Your task to perform on an android device: Open a new private window in the chrome app Image 0: 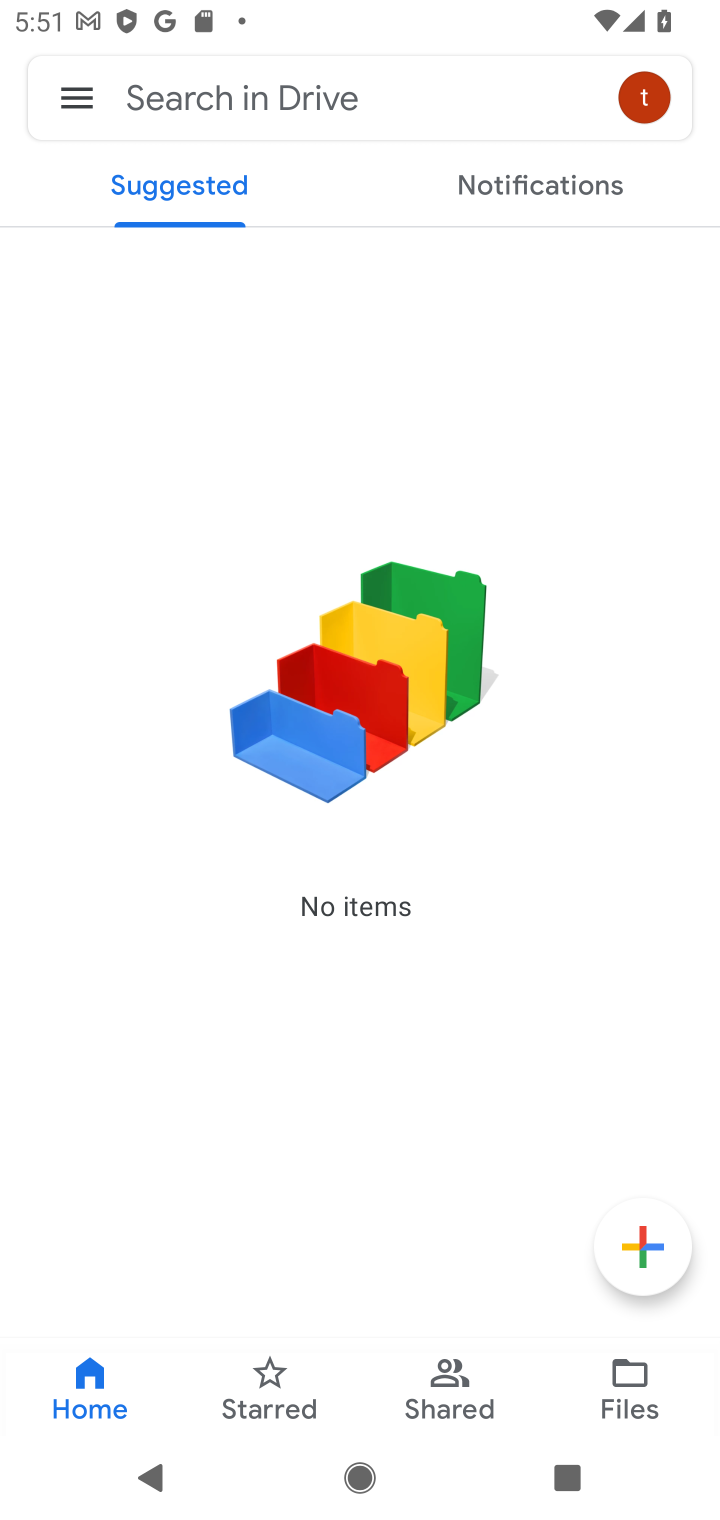
Step 0: press home button
Your task to perform on an android device: Open a new private window in the chrome app Image 1: 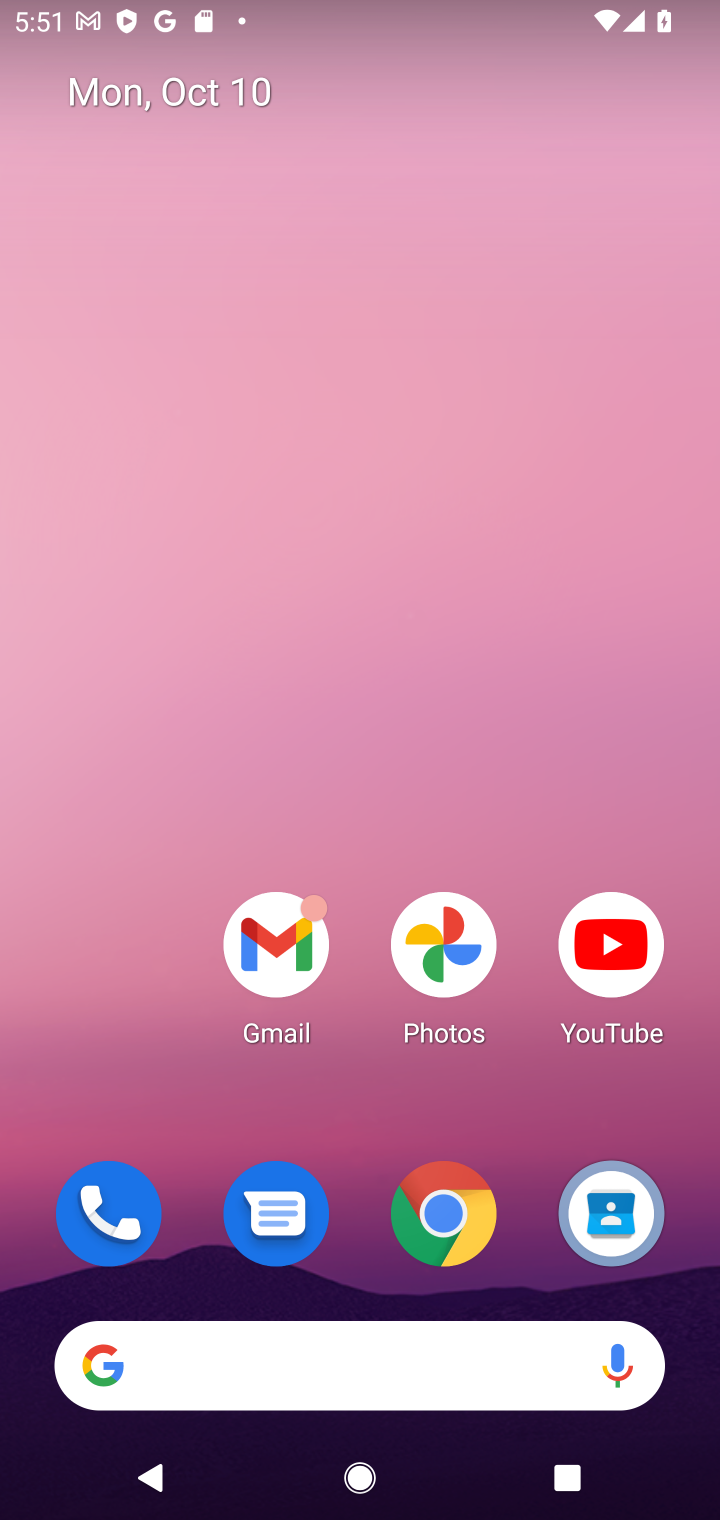
Step 1: click (437, 1215)
Your task to perform on an android device: Open a new private window in the chrome app Image 2: 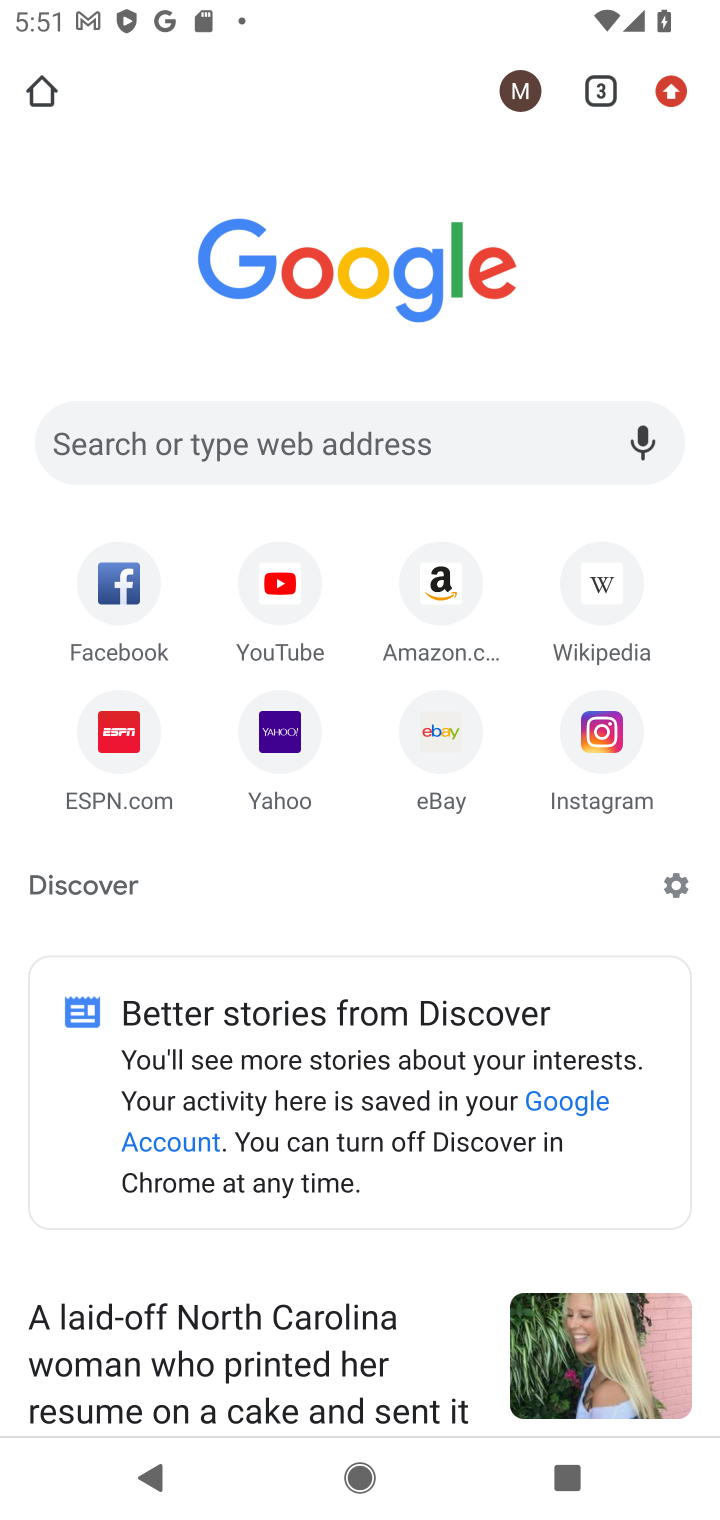
Step 2: click (673, 86)
Your task to perform on an android device: Open a new private window in the chrome app Image 3: 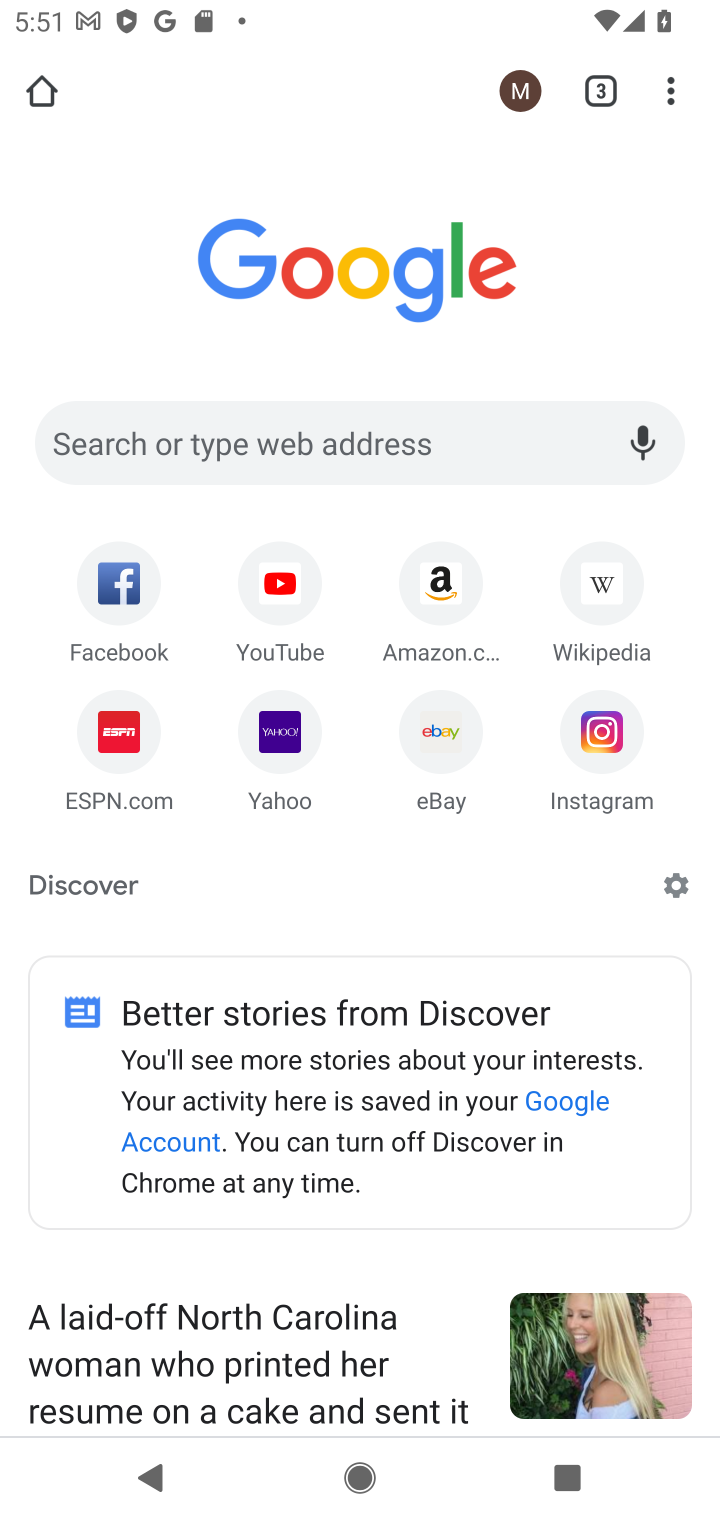
Step 3: click (673, 86)
Your task to perform on an android device: Open a new private window in the chrome app Image 4: 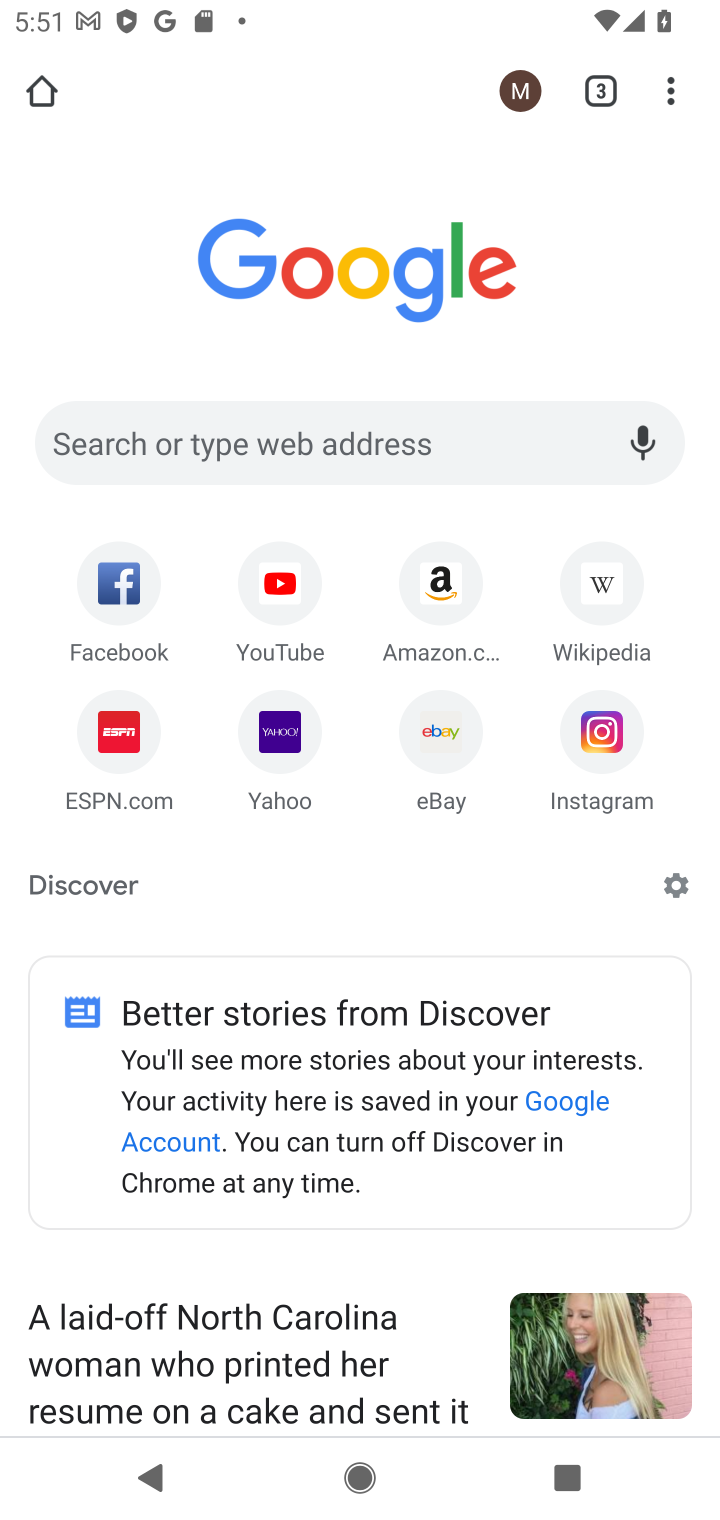
Step 4: click (657, 93)
Your task to perform on an android device: Open a new private window in the chrome app Image 5: 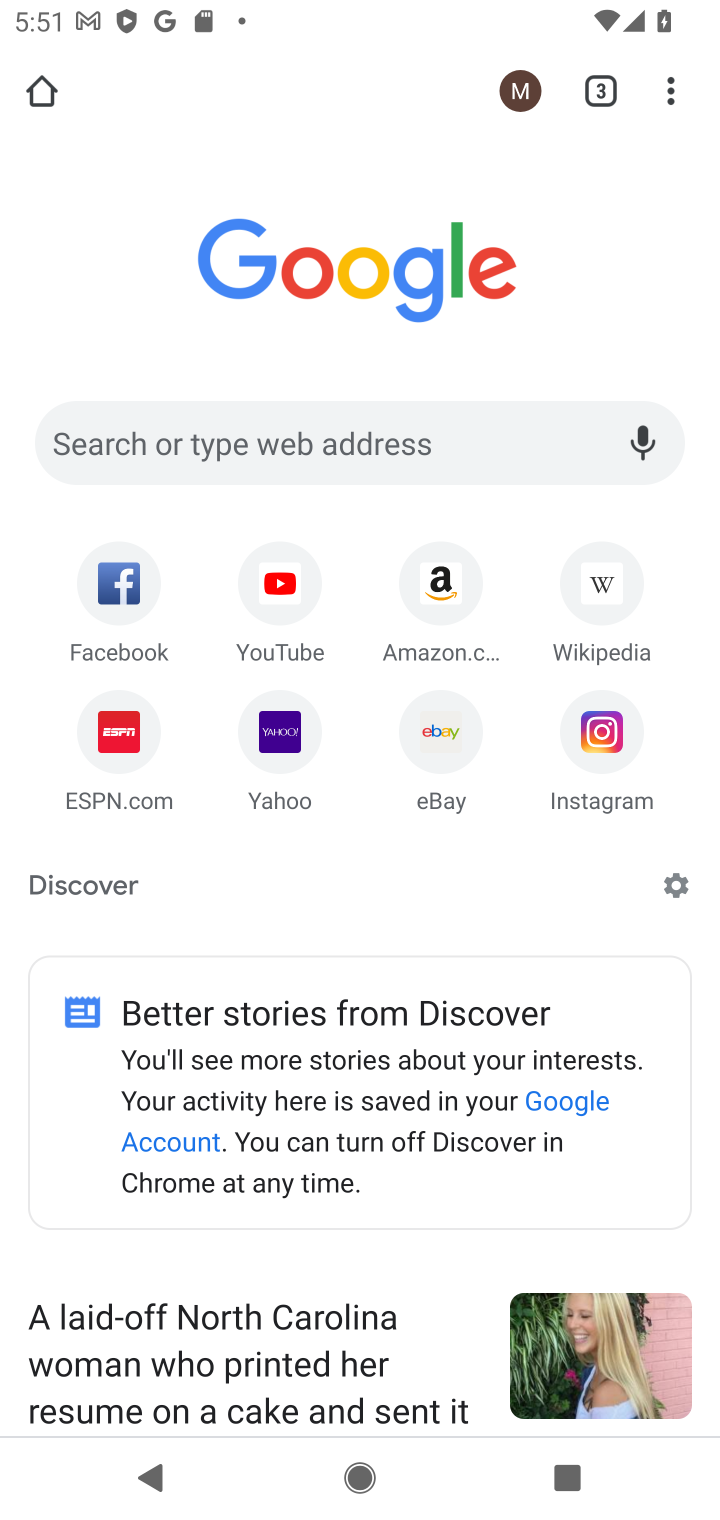
Step 5: click (662, 93)
Your task to perform on an android device: Open a new private window in the chrome app Image 6: 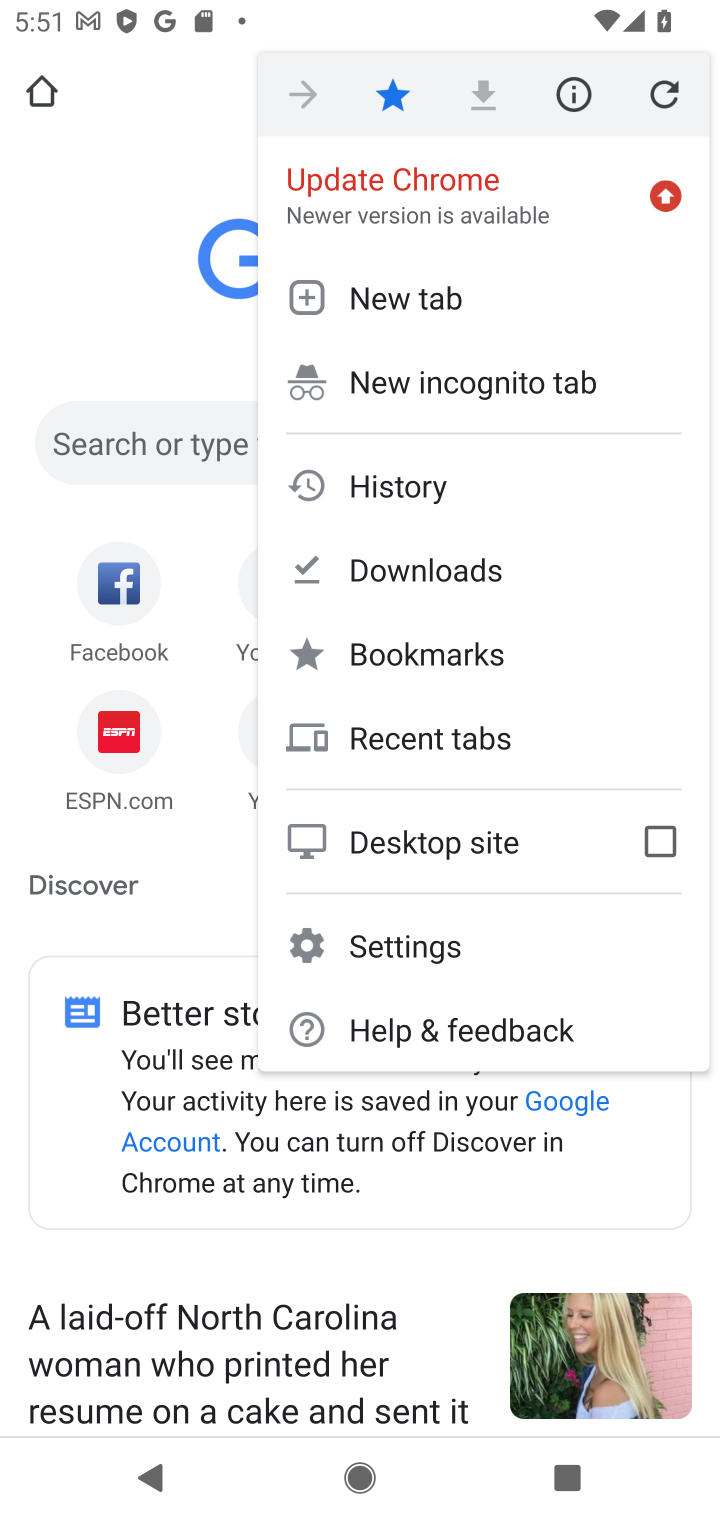
Step 6: click (398, 301)
Your task to perform on an android device: Open a new private window in the chrome app Image 7: 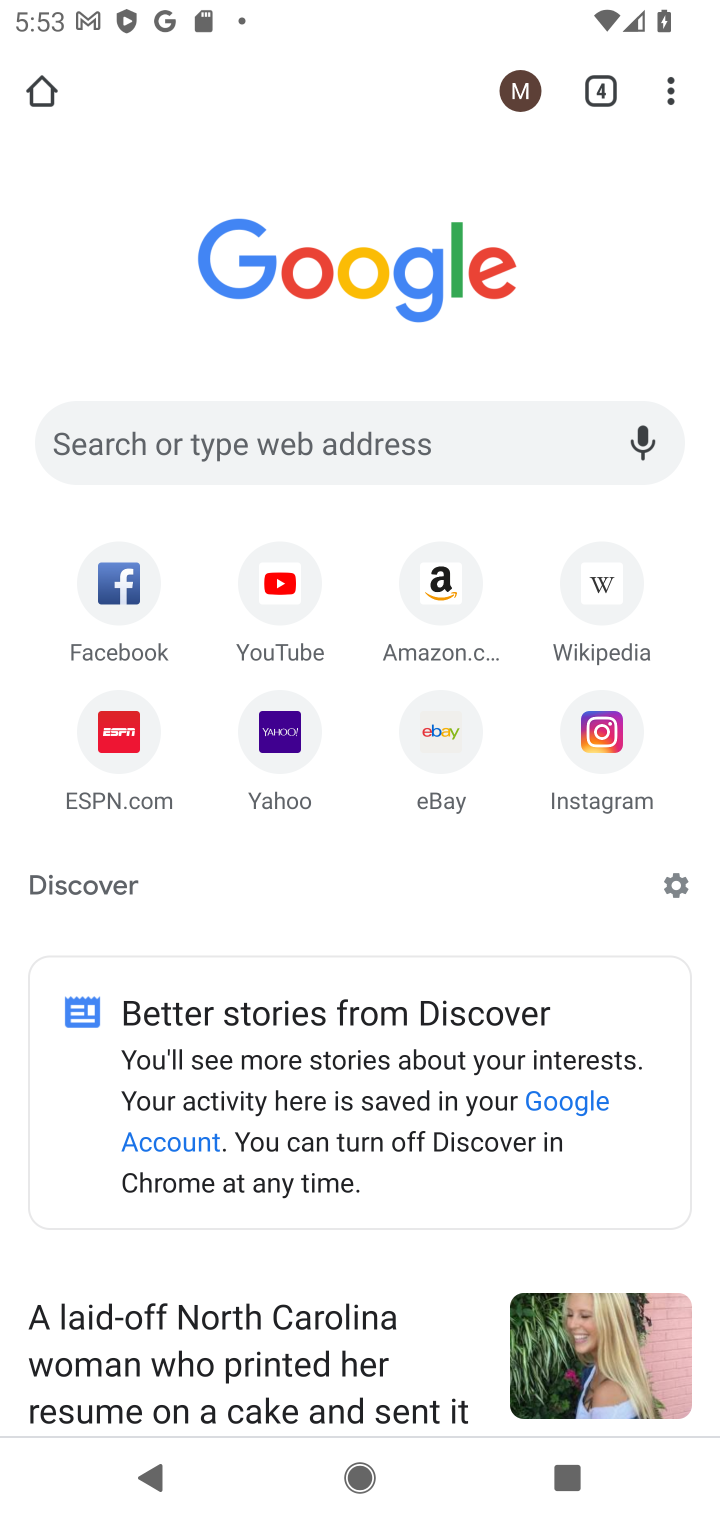
Step 7: task complete